Your task to perform on an android device: Go to calendar. Show me events next week Image 0: 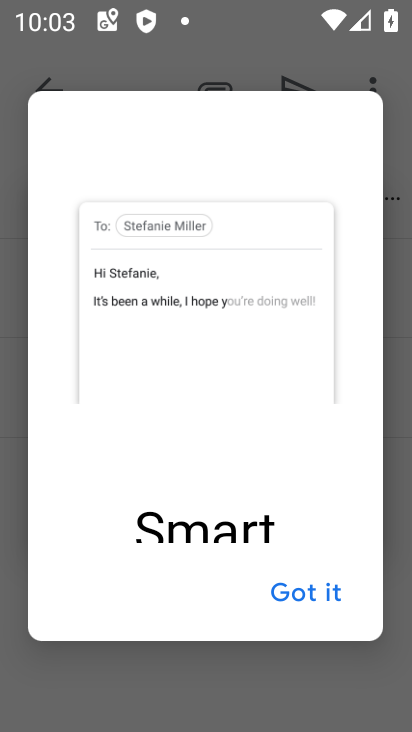
Step 0: press home button
Your task to perform on an android device: Go to calendar. Show me events next week Image 1: 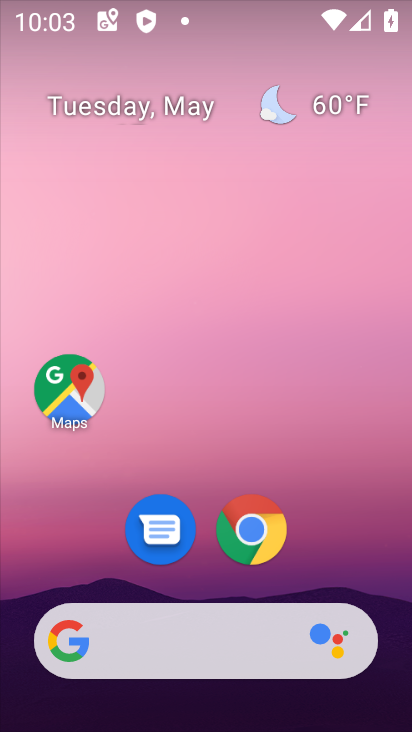
Step 1: drag from (258, 591) to (298, 282)
Your task to perform on an android device: Go to calendar. Show me events next week Image 2: 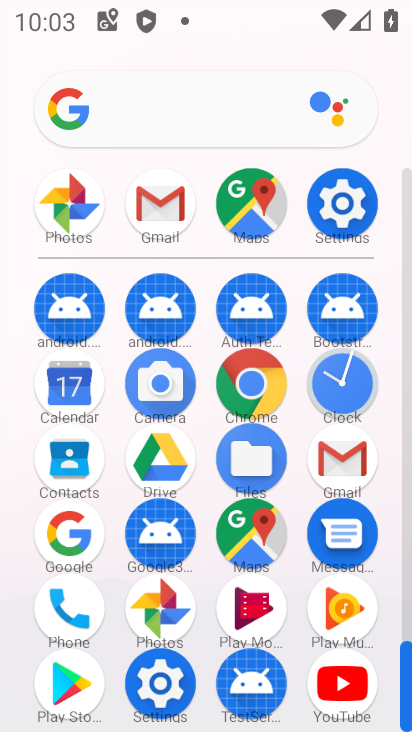
Step 2: click (58, 388)
Your task to perform on an android device: Go to calendar. Show me events next week Image 3: 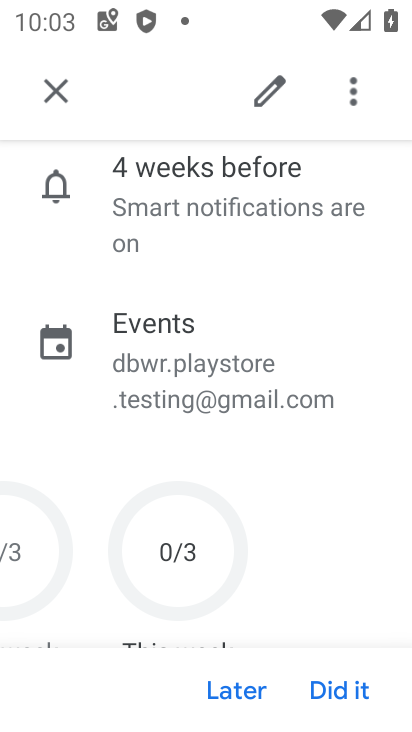
Step 3: click (49, 100)
Your task to perform on an android device: Go to calendar. Show me events next week Image 4: 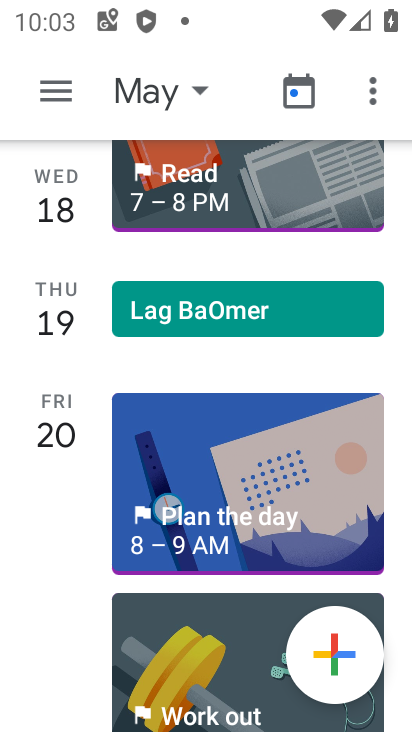
Step 4: drag from (137, 604) to (168, 206)
Your task to perform on an android device: Go to calendar. Show me events next week Image 5: 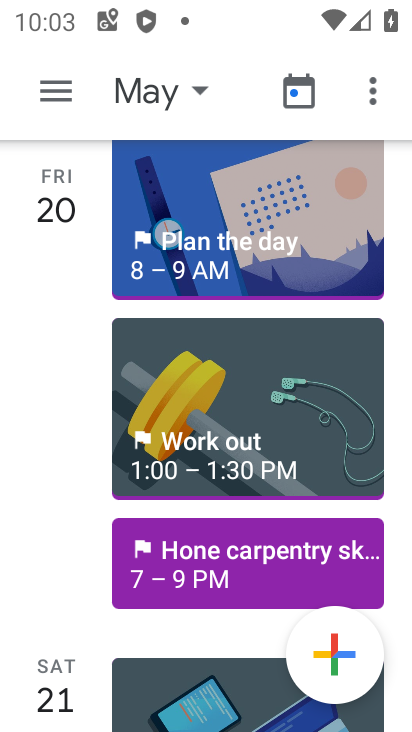
Step 5: drag from (122, 659) to (131, 330)
Your task to perform on an android device: Go to calendar. Show me events next week Image 6: 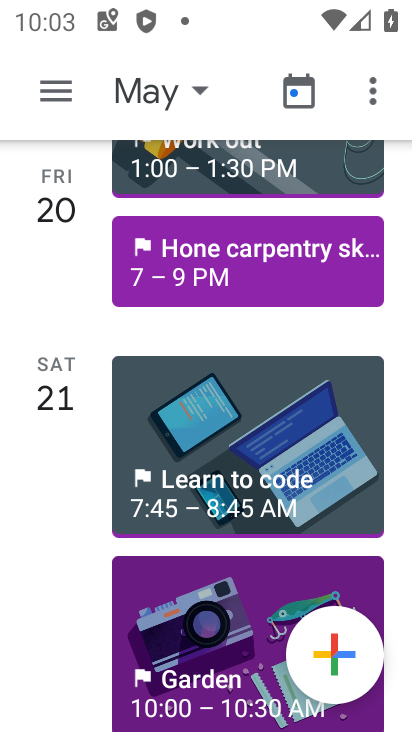
Step 6: click (163, 96)
Your task to perform on an android device: Go to calendar. Show me events next week Image 7: 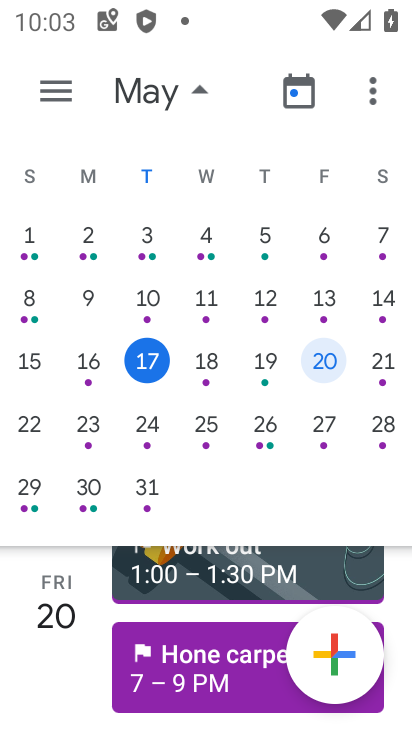
Step 7: click (25, 489)
Your task to perform on an android device: Go to calendar. Show me events next week Image 8: 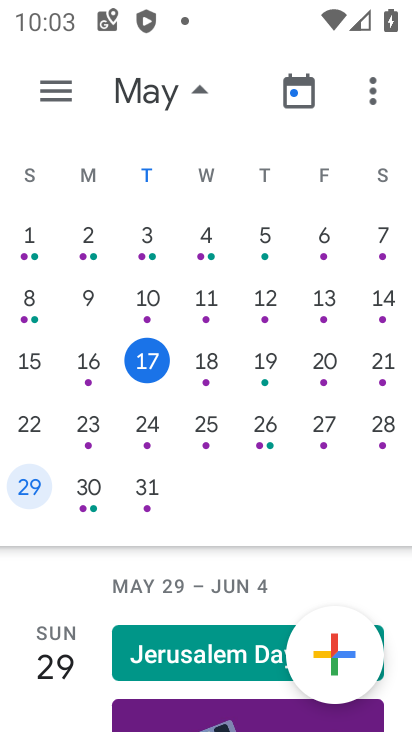
Step 8: task complete